Your task to perform on an android device: Open settings Image 0: 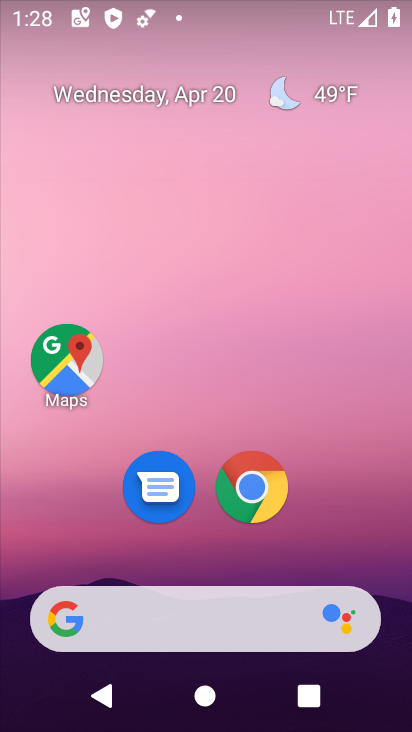
Step 0: drag from (369, 482) to (323, 167)
Your task to perform on an android device: Open settings Image 1: 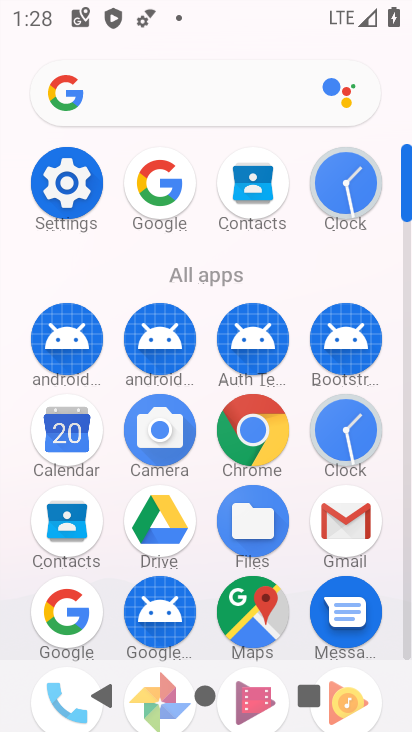
Step 1: click (75, 176)
Your task to perform on an android device: Open settings Image 2: 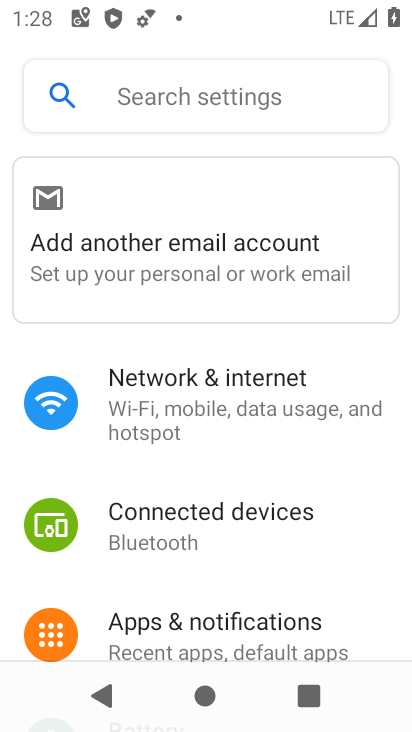
Step 2: task complete